Your task to perform on an android device: Show me the alarms in the clock app Image 0: 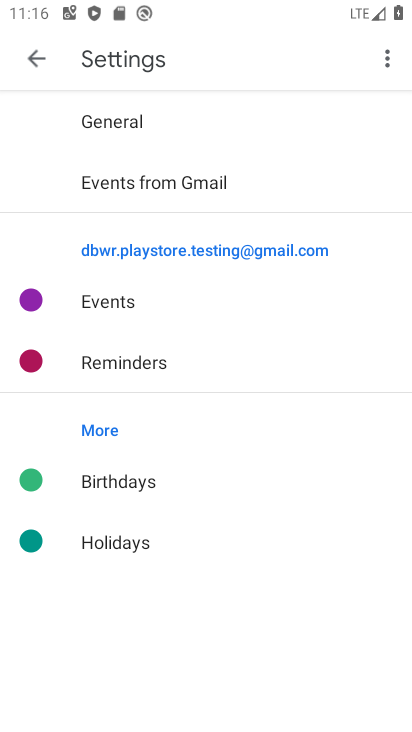
Step 0: press home button
Your task to perform on an android device: Show me the alarms in the clock app Image 1: 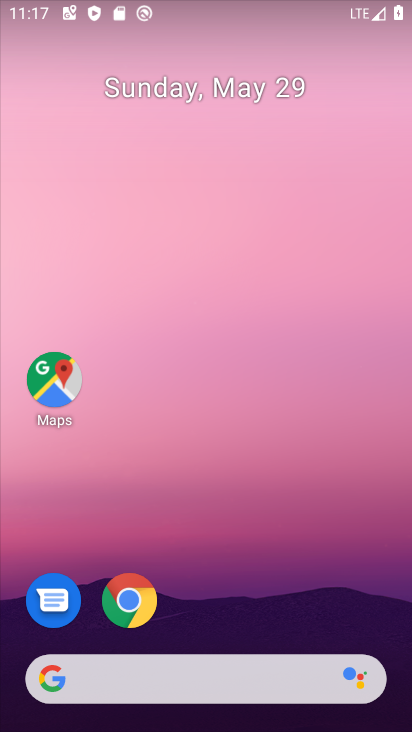
Step 1: drag from (300, 572) to (296, 83)
Your task to perform on an android device: Show me the alarms in the clock app Image 2: 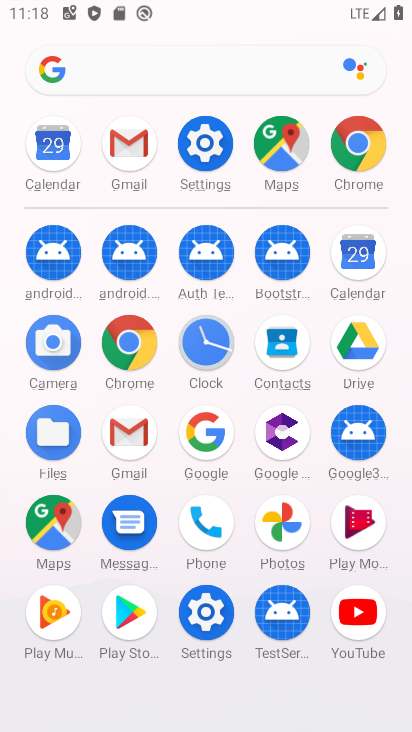
Step 2: click (272, 61)
Your task to perform on an android device: Show me the alarms in the clock app Image 3: 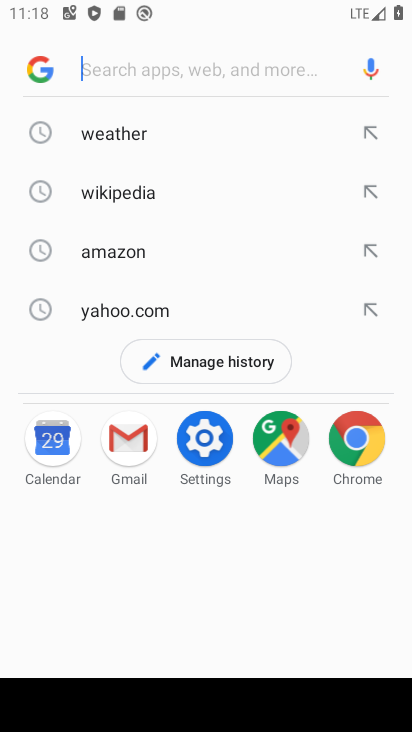
Step 3: press home button
Your task to perform on an android device: Show me the alarms in the clock app Image 4: 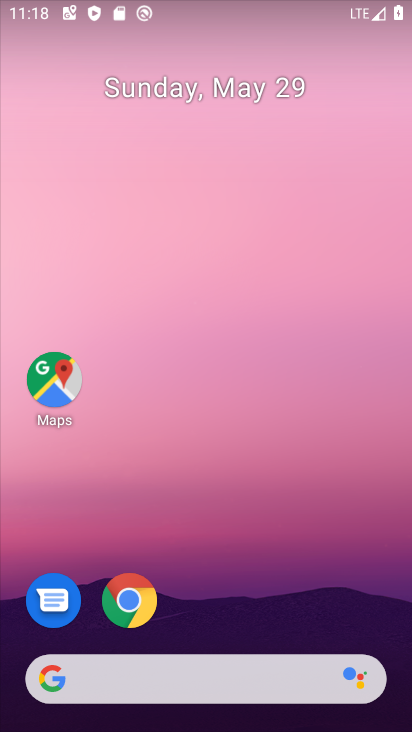
Step 4: drag from (342, 507) to (241, 5)
Your task to perform on an android device: Show me the alarms in the clock app Image 5: 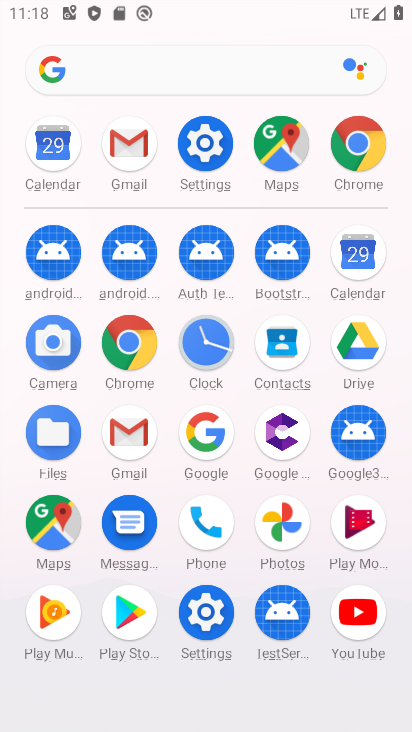
Step 5: click (226, 323)
Your task to perform on an android device: Show me the alarms in the clock app Image 6: 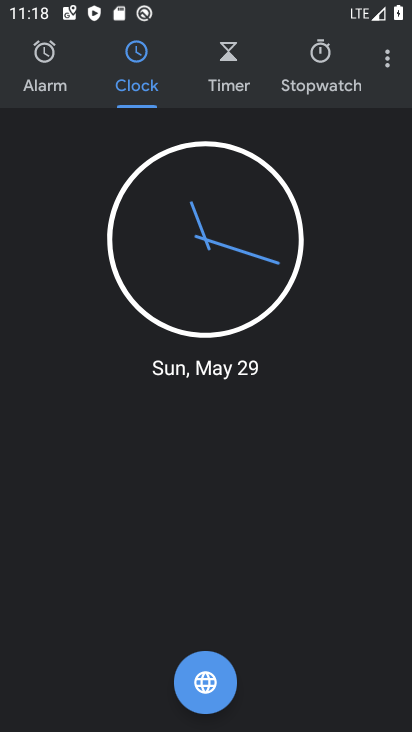
Step 6: click (58, 50)
Your task to perform on an android device: Show me the alarms in the clock app Image 7: 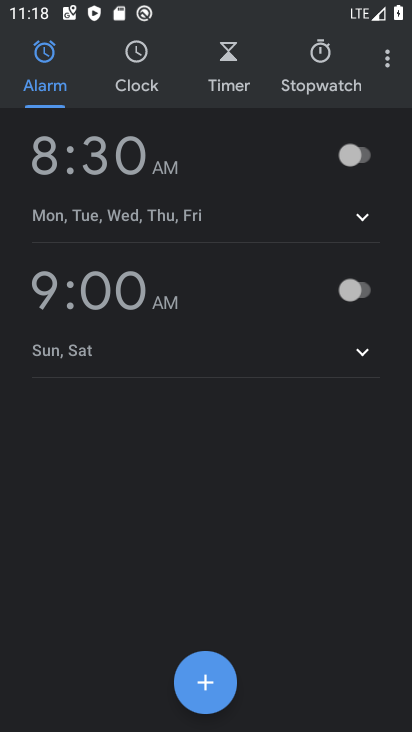
Step 7: task complete